Your task to perform on an android device: Turn off the flashlight Image 0: 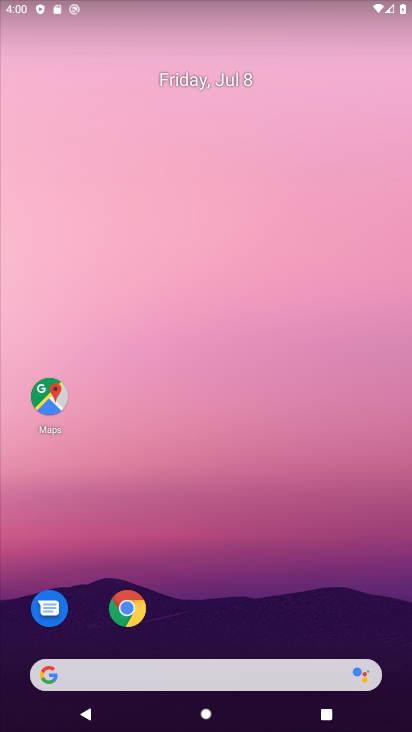
Step 0: drag from (202, 632) to (263, 0)
Your task to perform on an android device: Turn off the flashlight Image 1: 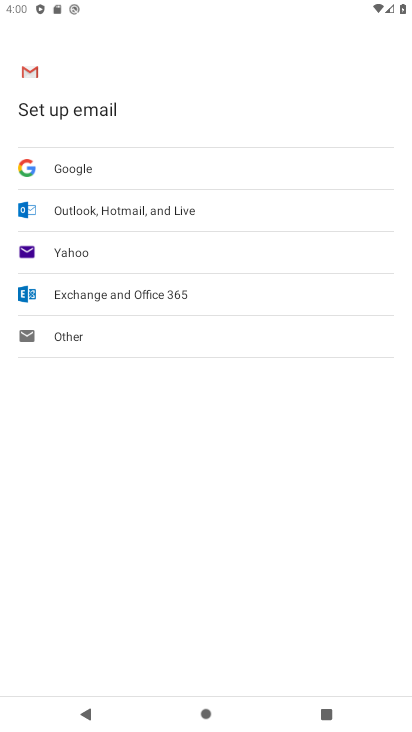
Step 1: press home button
Your task to perform on an android device: Turn off the flashlight Image 2: 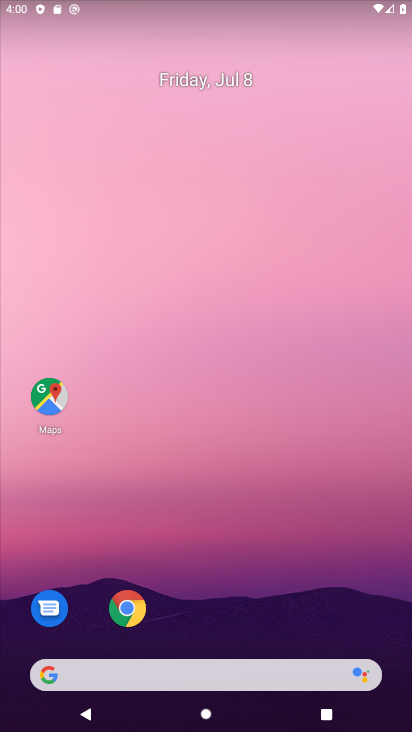
Step 2: drag from (207, 636) to (242, 92)
Your task to perform on an android device: Turn off the flashlight Image 3: 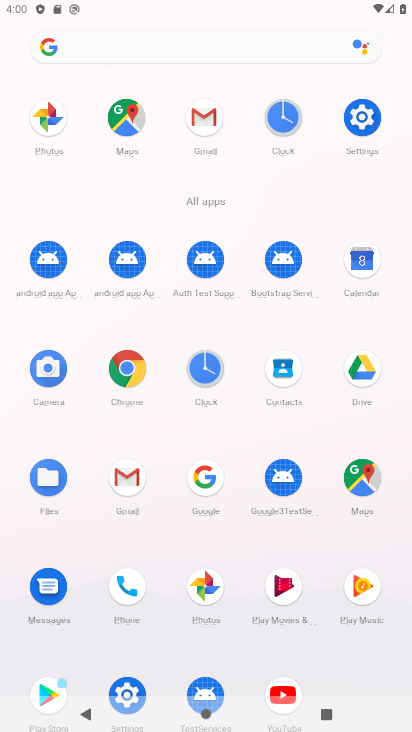
Step 3: click (363, 111)
Your task to perform on an android device: Turn off the flashlight Image 4: 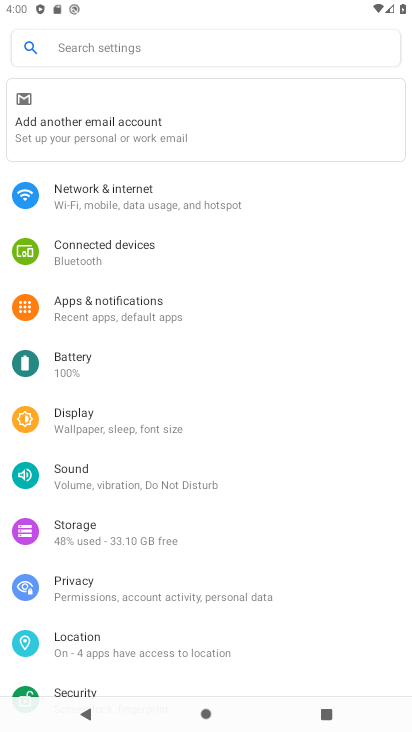
Step 4: click (133, 43)
Your task to perform on an android device: Turn off the flashlight Image 5: 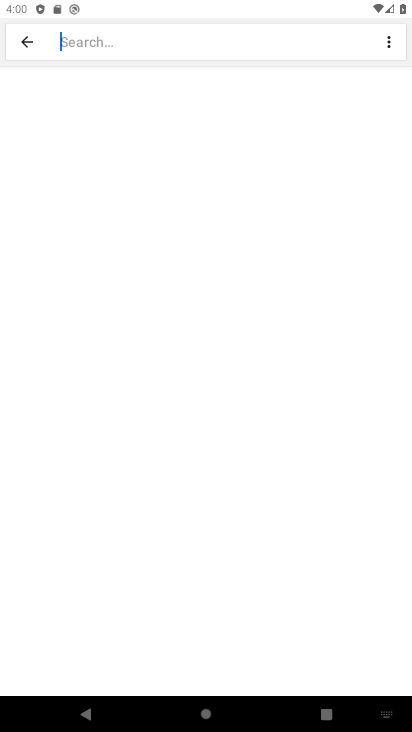
Step 5: type "flashlight"
Your task to perform on an android device: Turn off the flashlight Image 6: 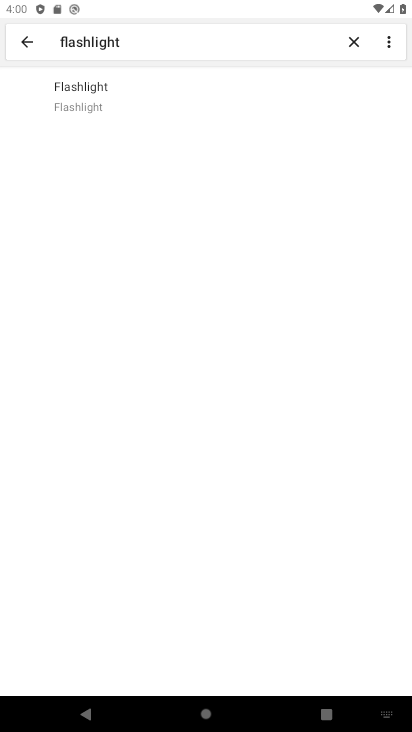
Step 6: click (121, 96)
Your task to perform on an android device: Turn off the flashlight Image 7: 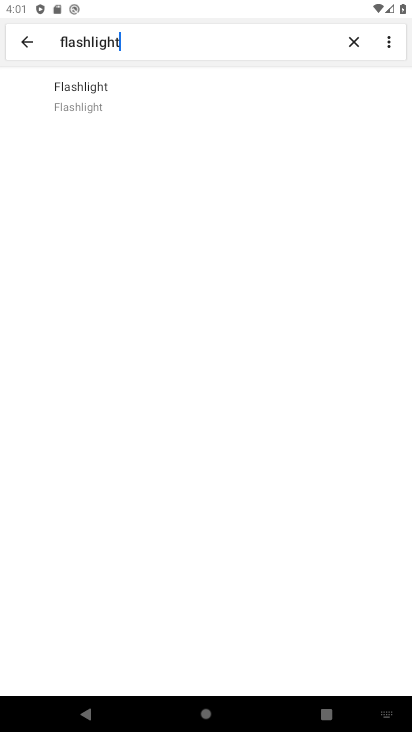
Step 7: click (102, 99)
Your task to perform on an android device: Turn off the flashlight Image 8: 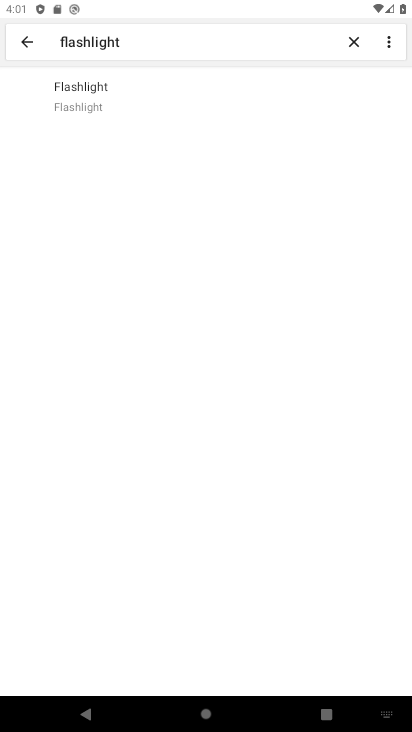
Step 8: task complete